Your task to perform on an android device: allow notifications from all sites in the chrome app Image 0: 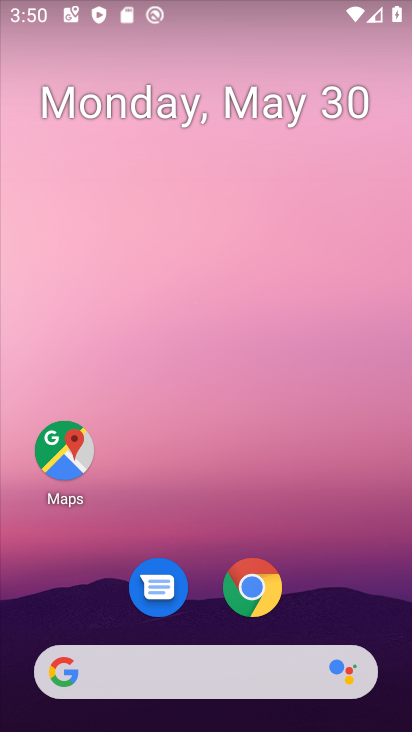
Step 0: drag from (267, 679) to (162, 146)
Your task to perform on an android device: allow notifications from all sites in the chrome app Image 1: 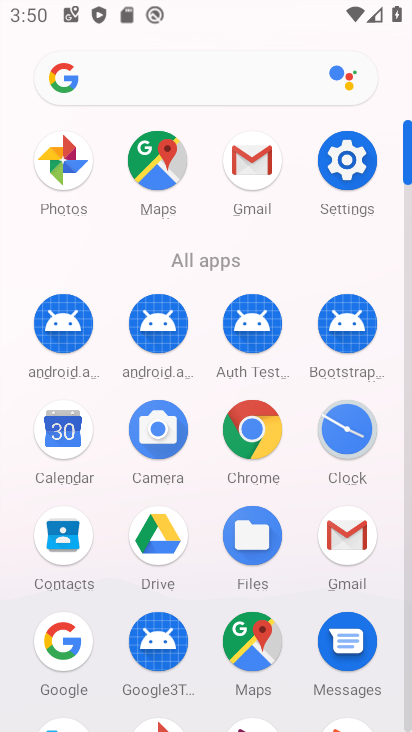
Step 1: click (249, 434)
Your task to perform on an android device: allow notifications from all sites in the chrome app Image 2: 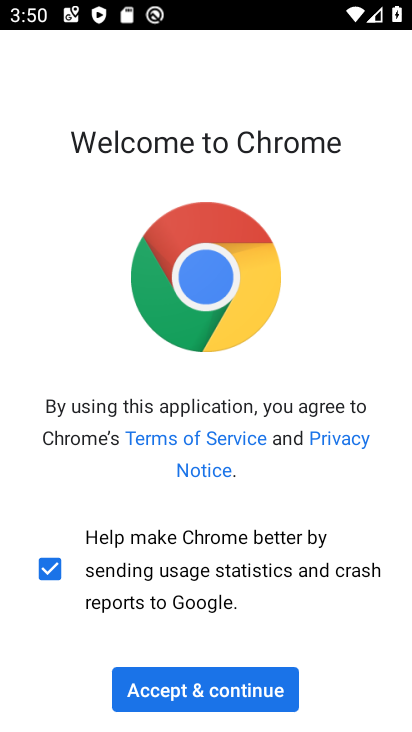
Step 2: click (219, 684)
Your task to perform on an android device: allow notifications from all sites in the chrome app Image 3: 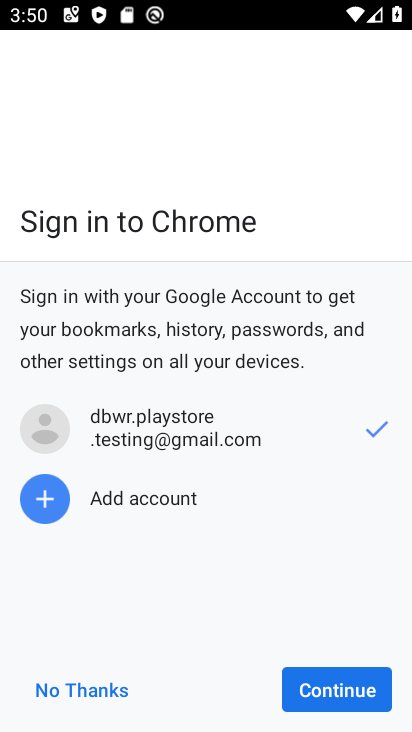
Step 3: click (341, 688)
Your task to perform on an android device: allow notifications from all sites in the chrome app Image 4: 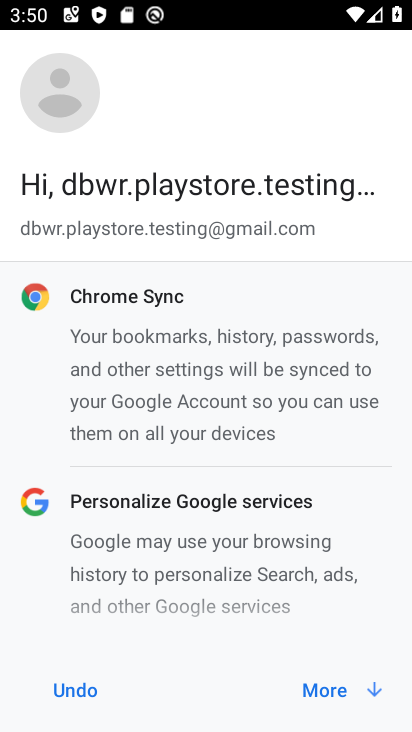
Step 4: click (371, 690)
Your task to perform on an android device: allow notifications from all sites in the chrome app Image 5: 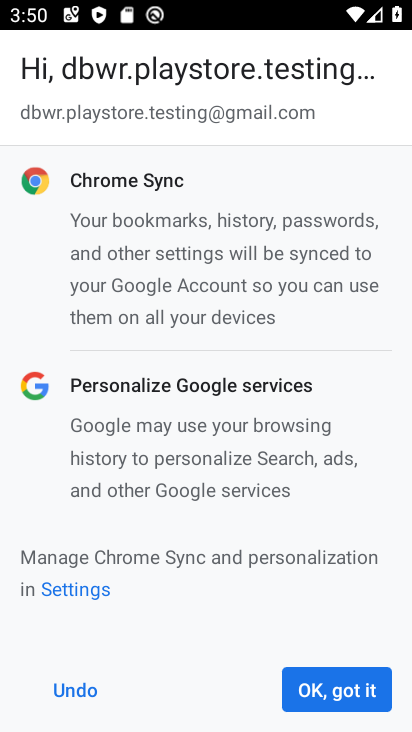
Step 5: click (335, 680)
Your task to perform on an android device: allow notifications from all sites in the chrome app Image 6: 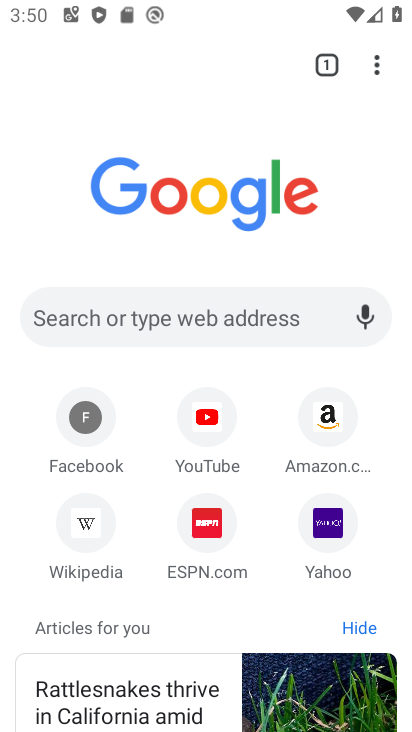
Step 6: click (384, 73)
Your task to perform on an android device: allow notifications from all sites in the chrome app Image 7: 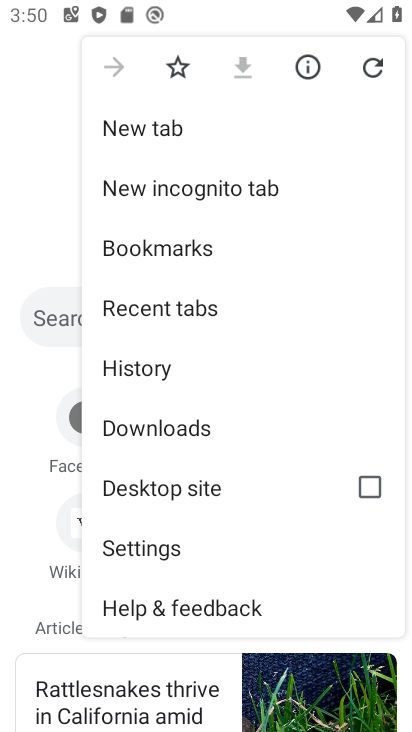
Step 7: click (137, 539)
Your task to perform on an android device: allow notifications from all sites in the chrome app Image 8: 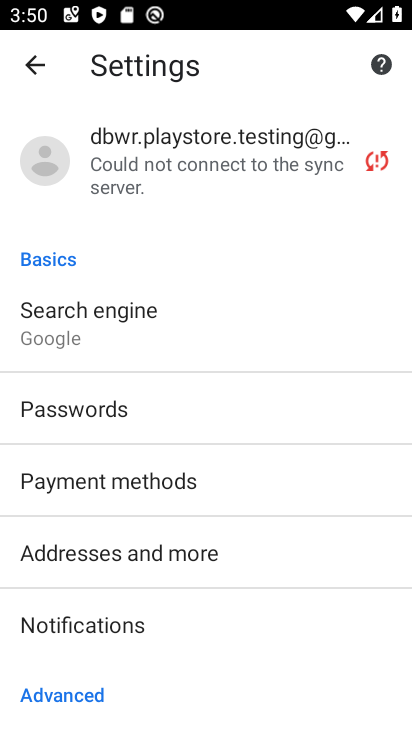
Step 8: drag from (98, 619) to (165, 361)
Your task to perform on an android device: allow notifications from all sites in the chrome app Image 9: 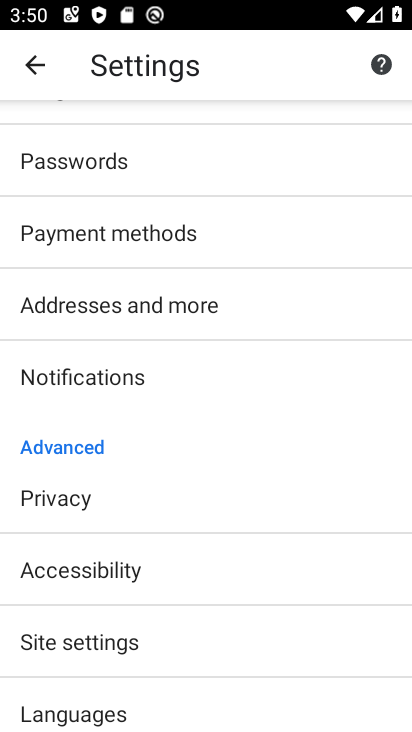
Step 9: click (96, 642)
Your task to perform on an android device: allow notifications from all sites in the chrome app Image 10: 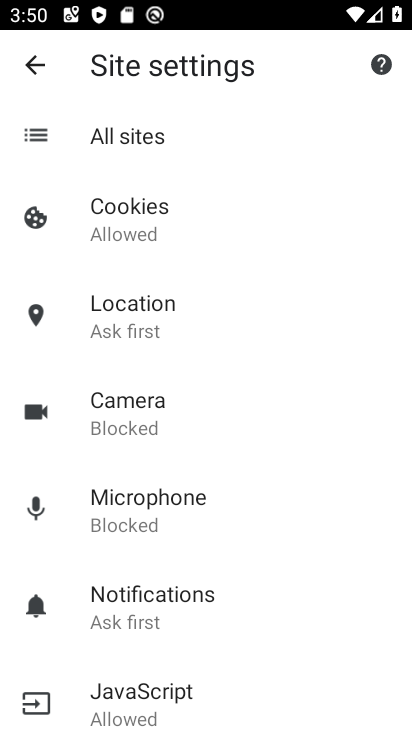
Step 10: click (118, 588)
Your task to perform on an android device: allow notifications from all sites in the chrome app Image 11: 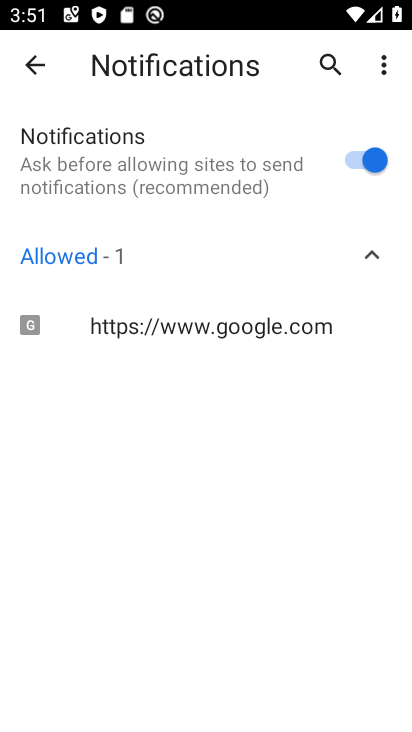
Step 11: click (353, 166)
Your task to perform on an android device: allow notifications from all sites in the chrome app Image 12: 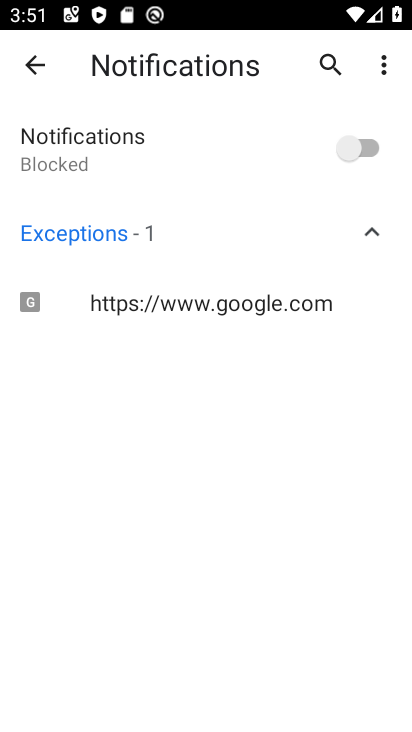
Step 12: click (354, 165)
Your task to perform on an android device: allow notifications from all sites in the chrome app Image 13: 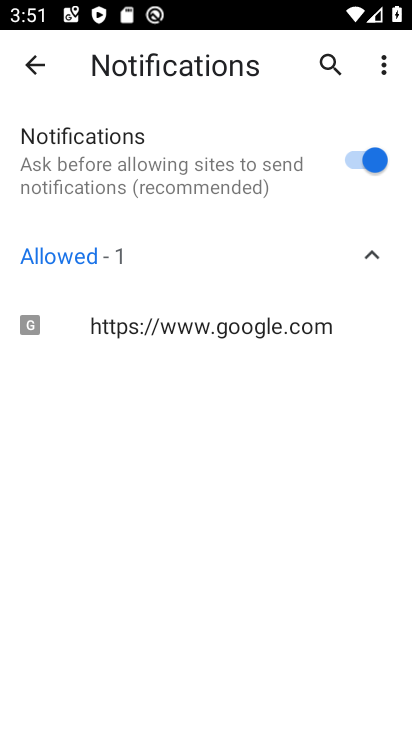
Step 13: task complete